Your task to perform on an android device: delete location history Image 0: 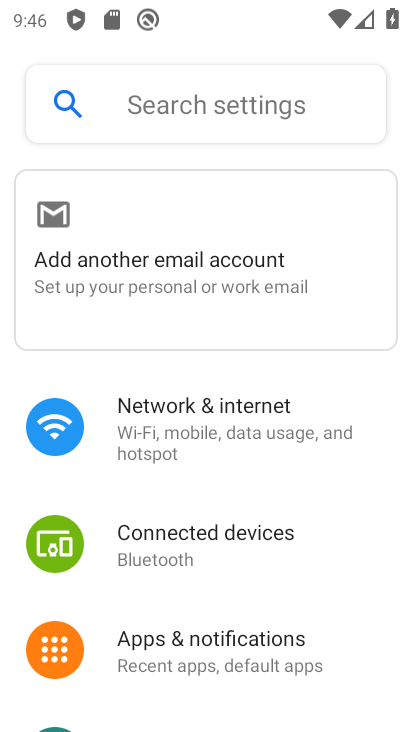
Step 0: drag from (343, 664) to (354, 339)
Your task to perform on an android device: delete location history Image 1: 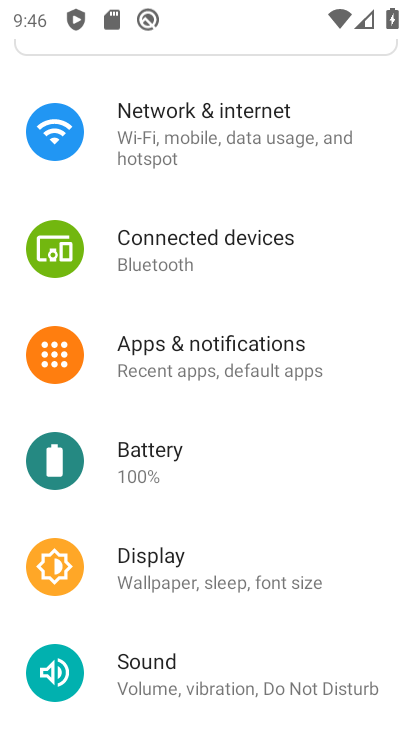
Step 1: press home button
Your task to perform on an android device: delete location history Image 2: 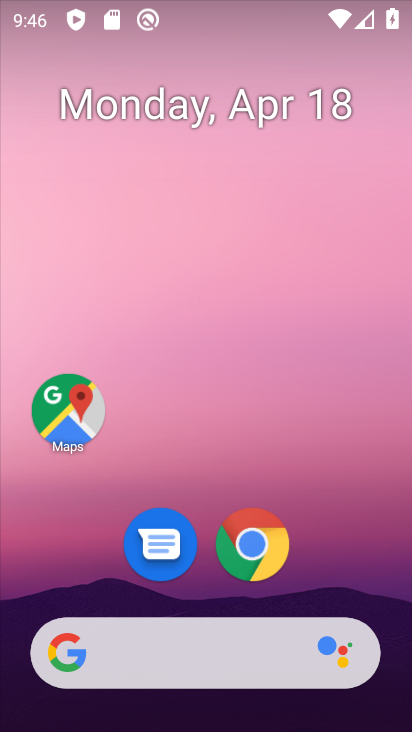
Step 2: drag from (378, 571) to (346, 42)
Your task to perform on an android device: delete location history Image 3: 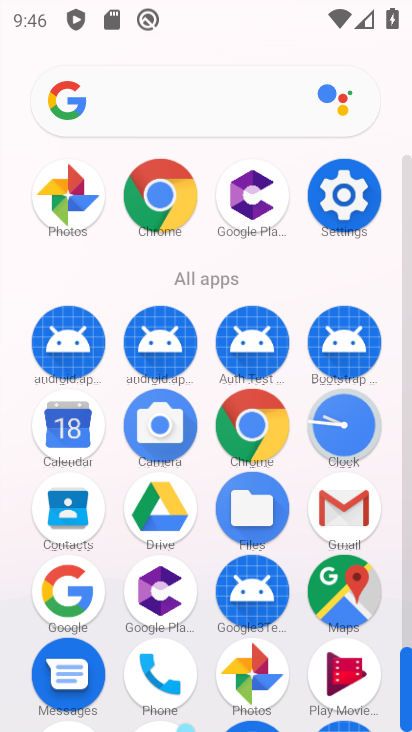
Step 3: click (349, 593)
Your task to perform on an android device: delete location history Image 4: 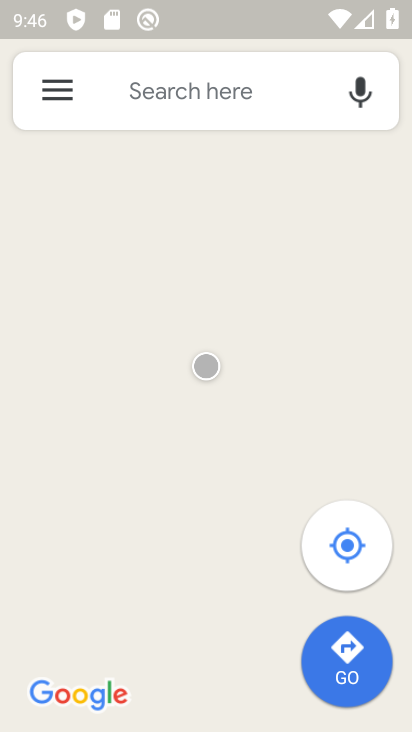
Step 4: click (60, 93)
Your task to perform on an android device: delete location history Image 5: 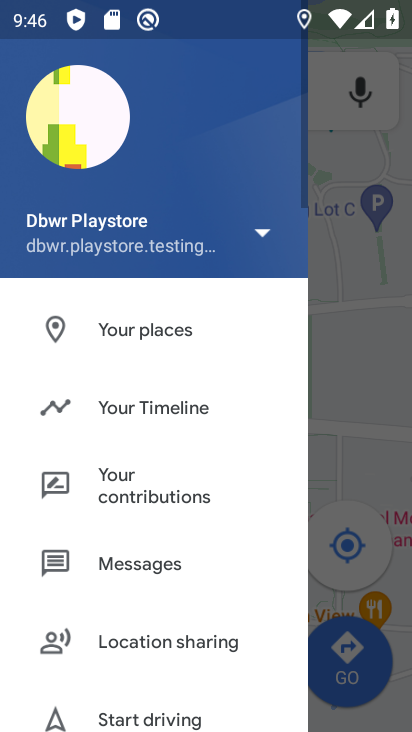
Step 5: click (170, 402)
Your task to perform on an android device: delete location history Image 6: 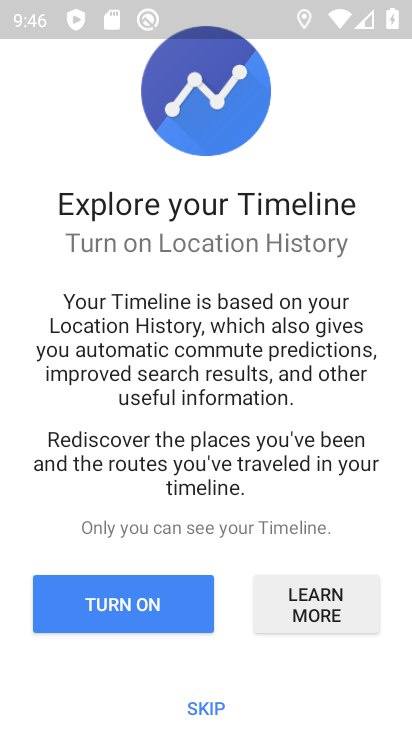
Step 6: click (168, 602)
Your task to perform on an android device: delete location history Image 7: 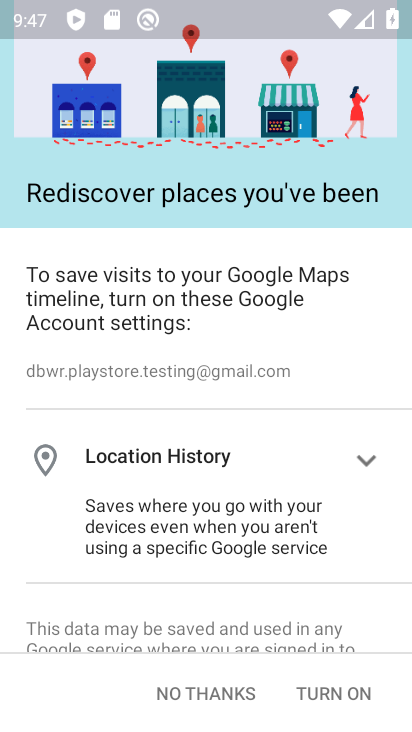
Step 7: click (337, 689)
Your task to perform on an android device: delete location history Image 8: 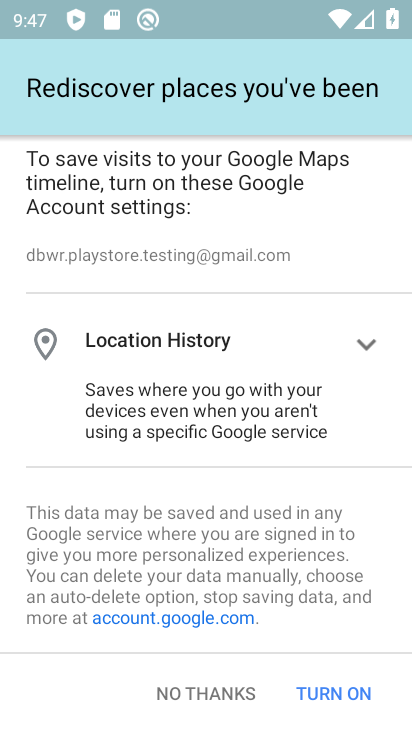
Step 8: click (197, 698)
Your task to perform on an android device: delete location history Image 9: 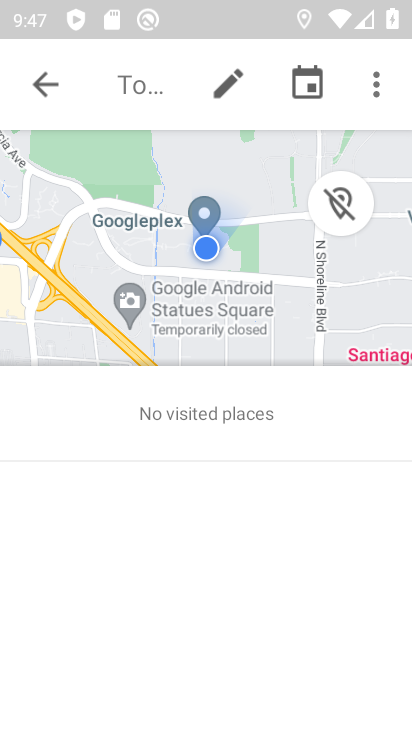
Step 9: click (381, 84)
Your task to perform on an android device: delete location history Image 10: 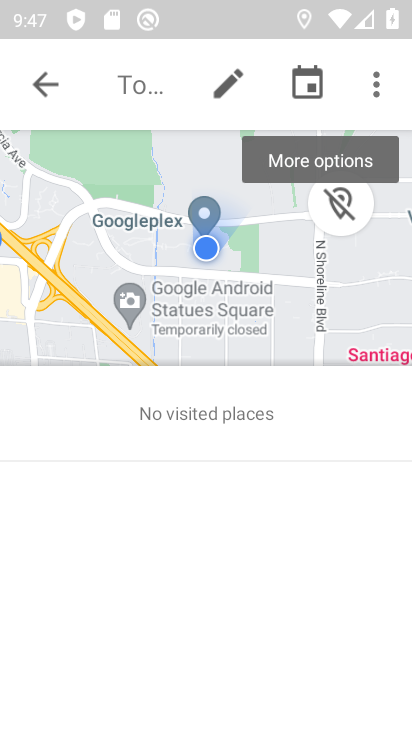
Step 10: click (378, 82)
Your task to perform on an android device: delete location history Image 11: 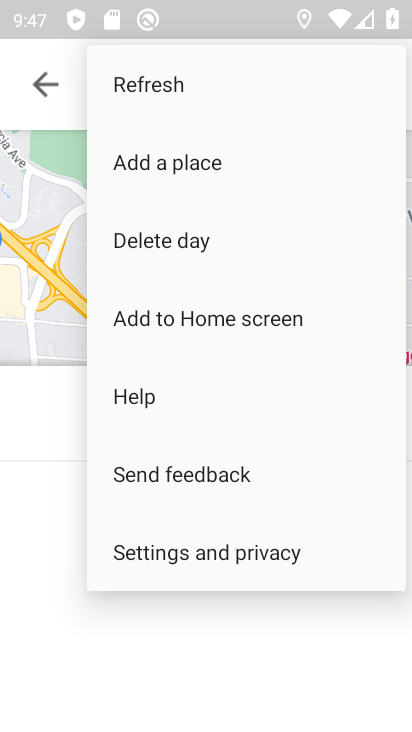
Step 11: click (239, 549)
Your task to perform on an android device: delete location history Image 12: 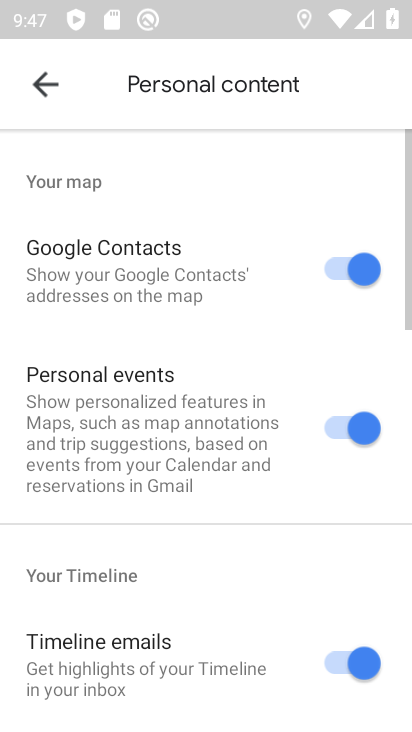
Step 12: drag from (235, 593) to (297, 216)
Your task to perform on an android device: delete location history Image 13: 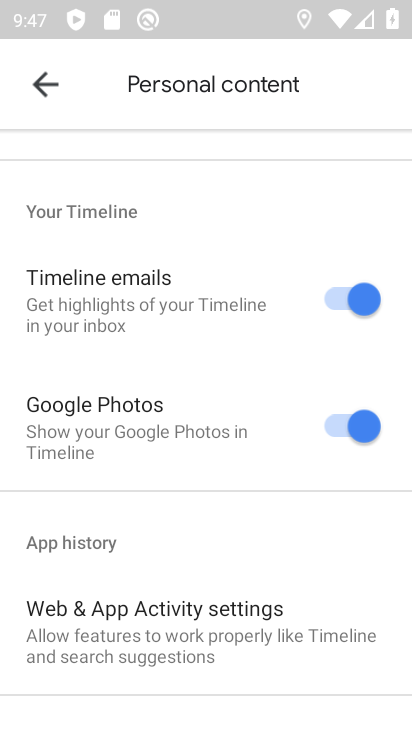
Step 13: drag from (221, 543) to (259, 262)
Your task to perform on an android device: delete location history Image 14: 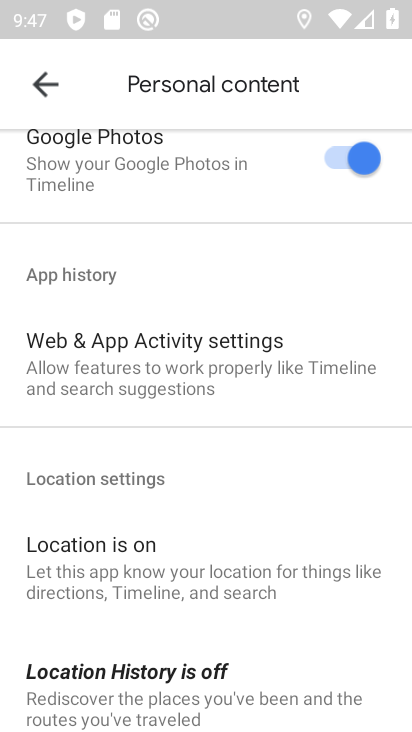
Step 14: click (132, 669)
Your task to perform on an android device: delete location history Image 15: 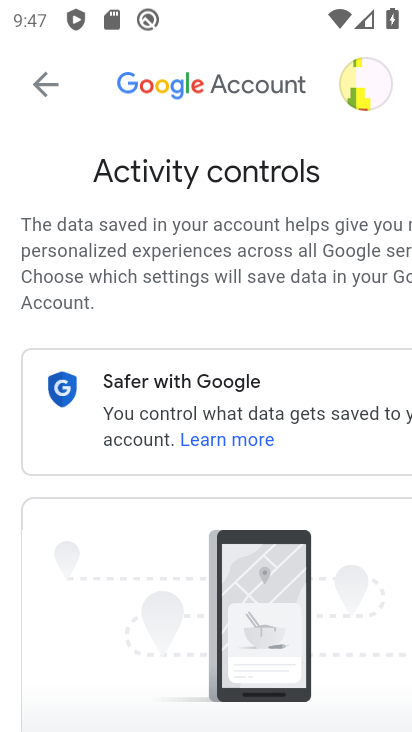
Step 15: drag from (124, 582) to (213, 205)
Your task to perform on an android device: delete location history Image 16: 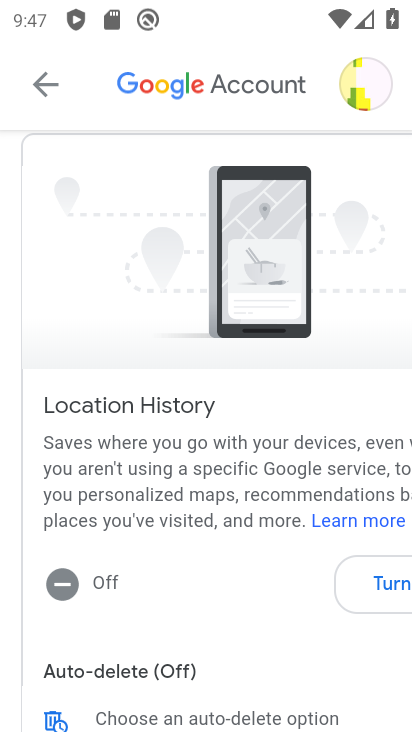
Step 16: drag from (311, 636) to (275, 331)
Your task to perform on an android device: delete location history Image 17: 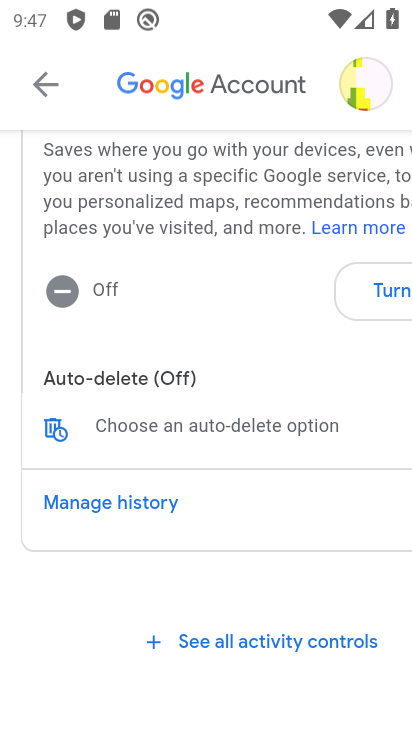
Step 17: click (44, 75)
Your task to perform on an android device: delete location history Image 18: 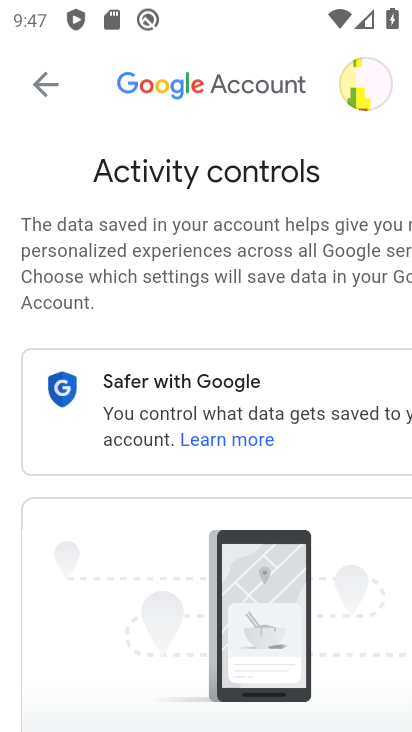
Step 18: click (42, 88)
Your task to perform on an android device: delete location history Image 19: 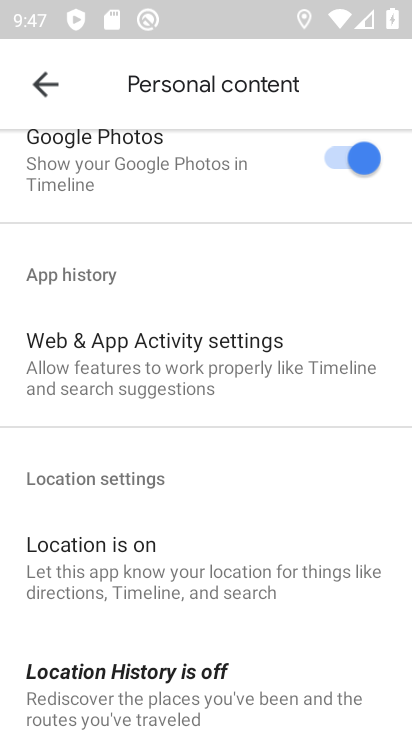
Step 19: drag from (292, 626) to (319, 253)
Your task to perform on an android device: delete location history Image 20: 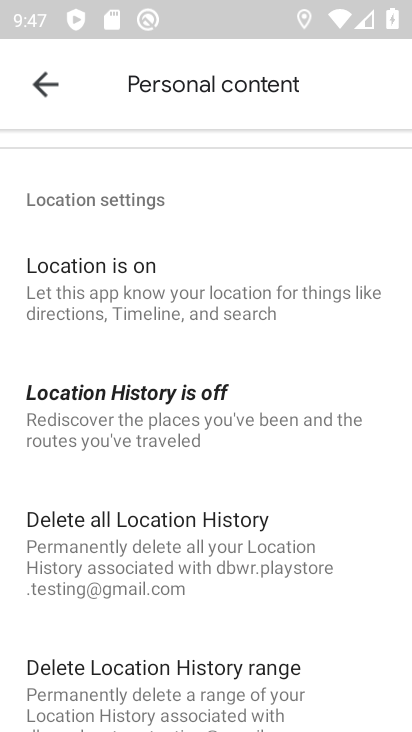
Step 20: click (141, 529)
Your task to perform on an android device: delete location history Image 21: 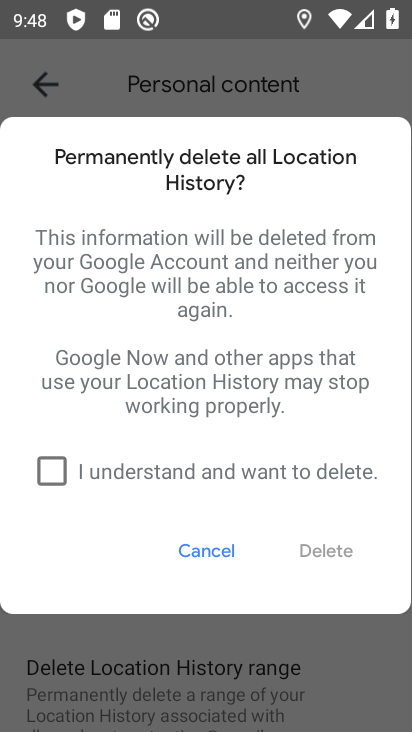
Step 21: click (58, 470)
Your task to perform on an android device: delete location history Image 22: 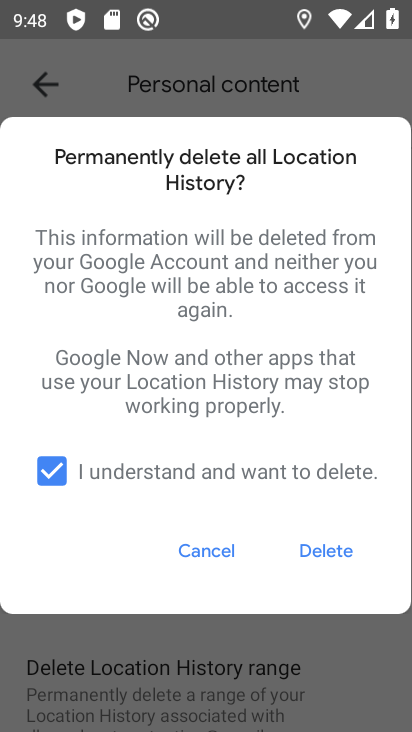
Step 22: click (327, 545)
Your task to perform on an android device: delete location history Image 23: 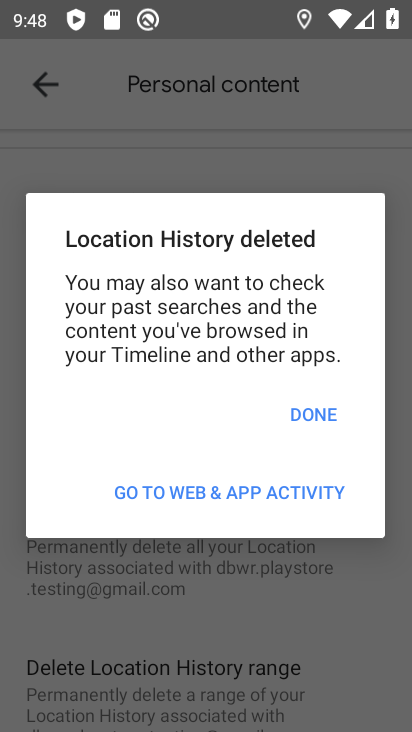
Step 23: click (308, 417)
Your task to perform on an android device: delete location history Image 24: 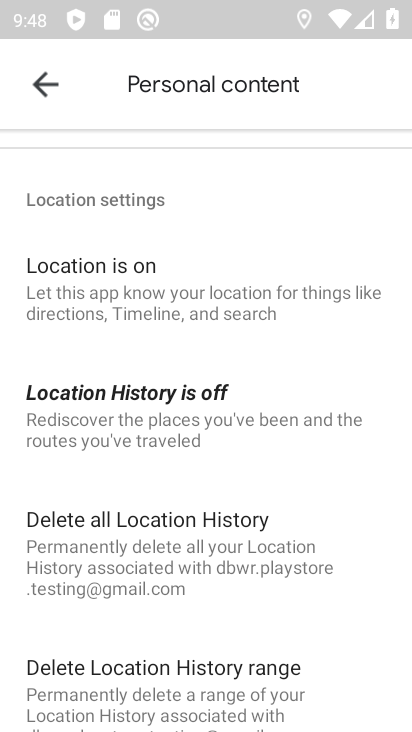
Step 24: task complete